Your task to perform on an android device: Look up the best rated headphones on Aliexpress Image 0: 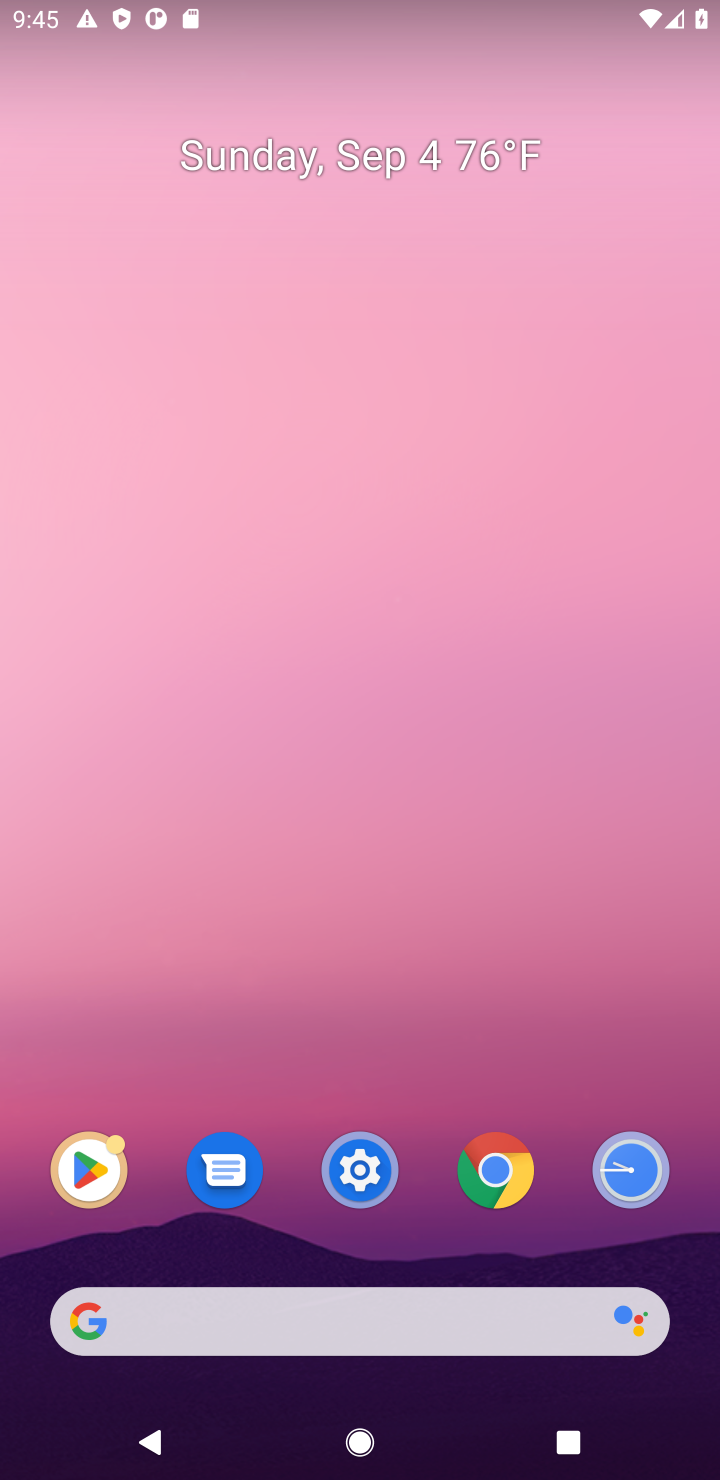
Step 0: click (143, 1331)
Your task to perform on an android device: Look up the best rated headphones on Aliexpress Image 1: 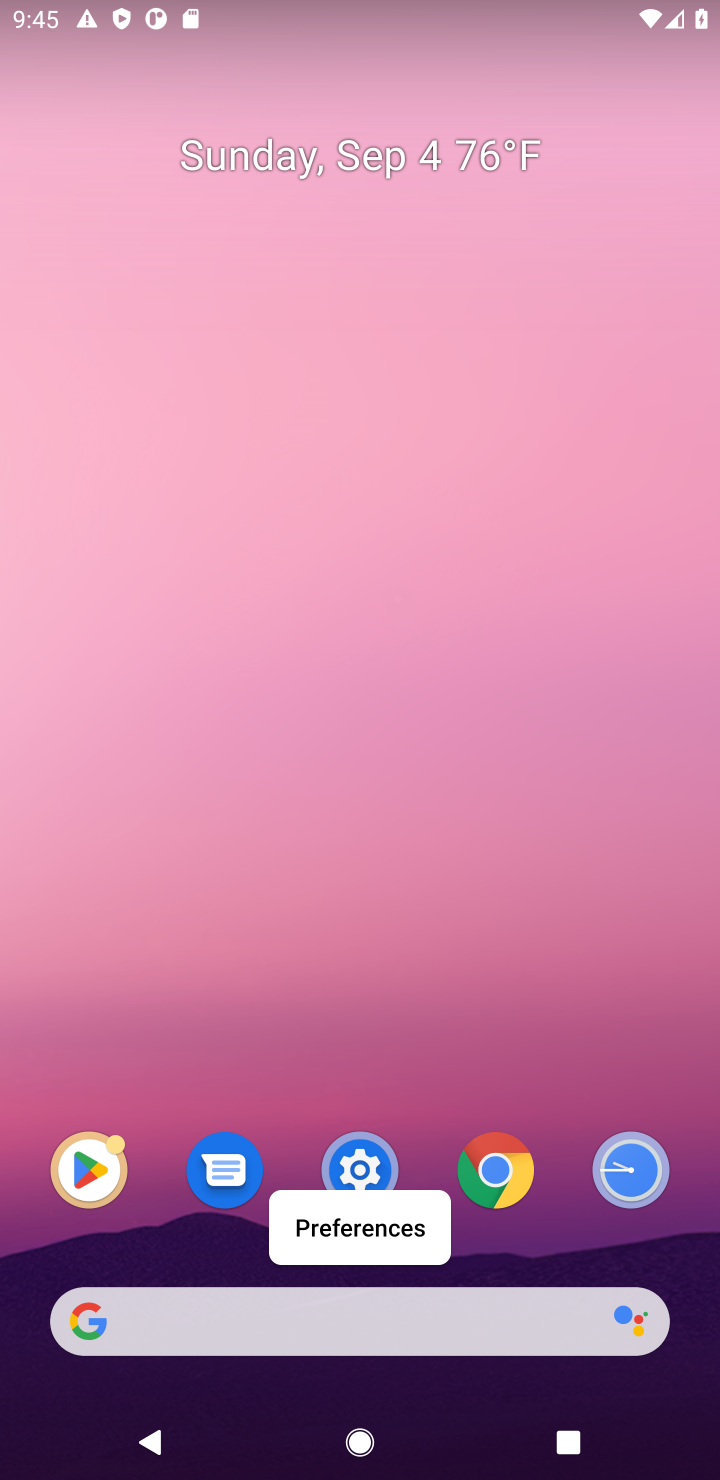
Step 1: click (215, 1318)
Your task to perform on an android device: Look up the best rated headphones on Aliexpress Image 2: 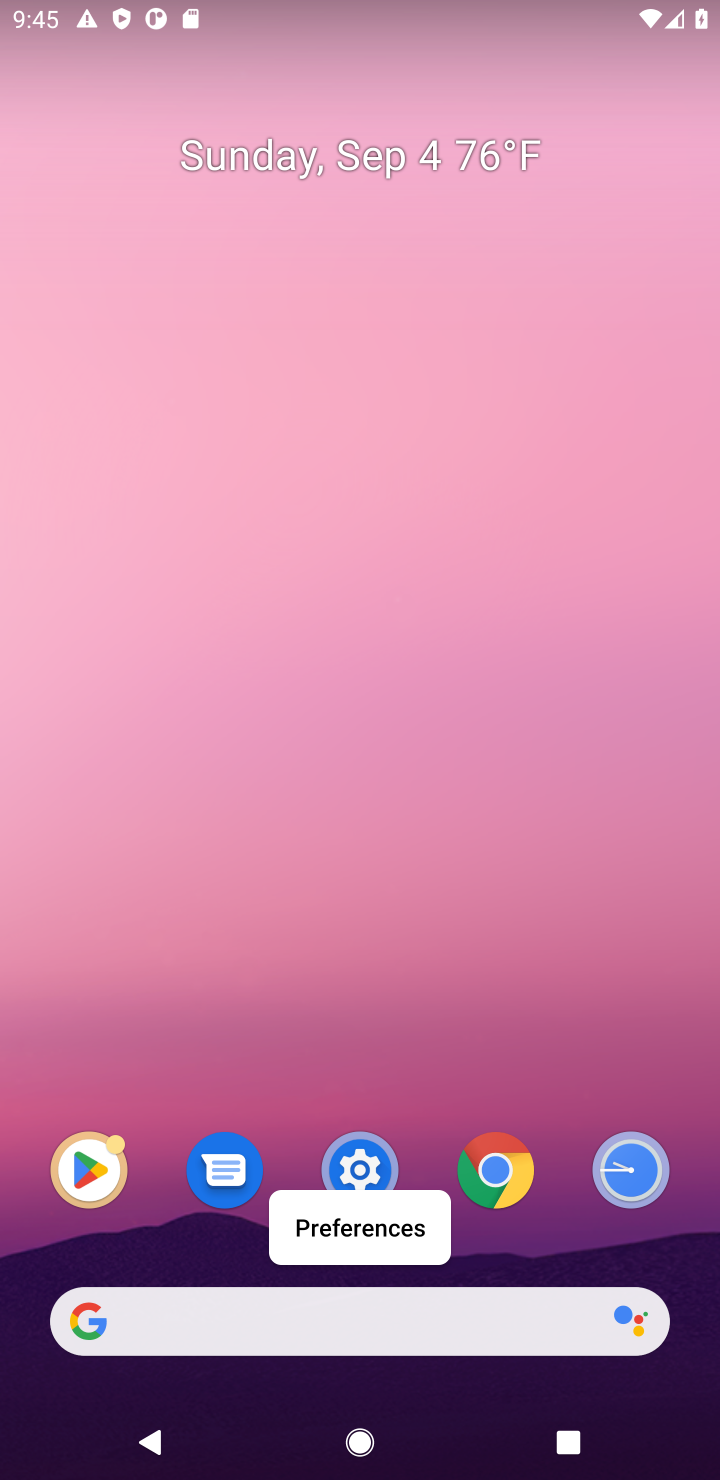
Step 2: click (215, 1317)
Your task to perform on an android device: Look up the best rated headphones on Aliexpress Image 3: 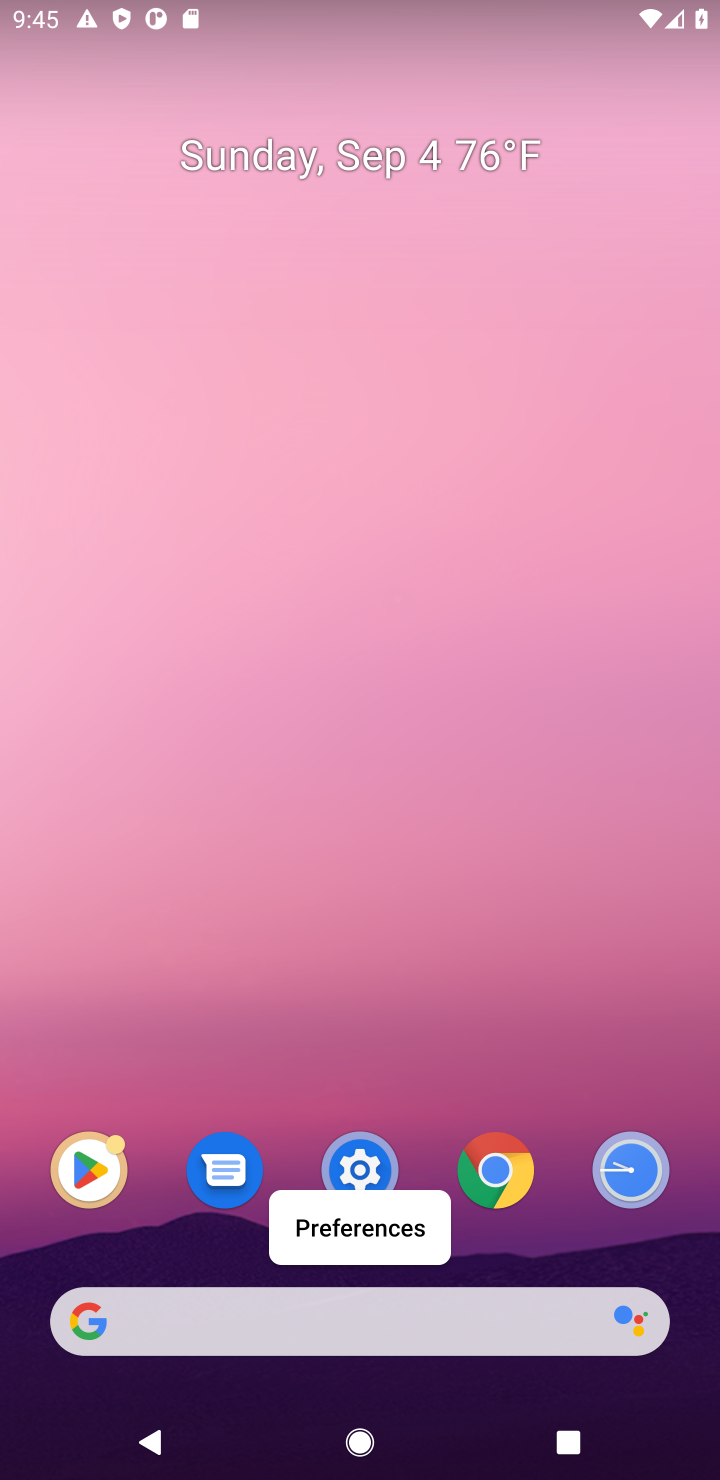
Step 3: click (250, 1318)
Your task to perform on an android device: Look up the best rated headphones on Aliexpress Image 4: 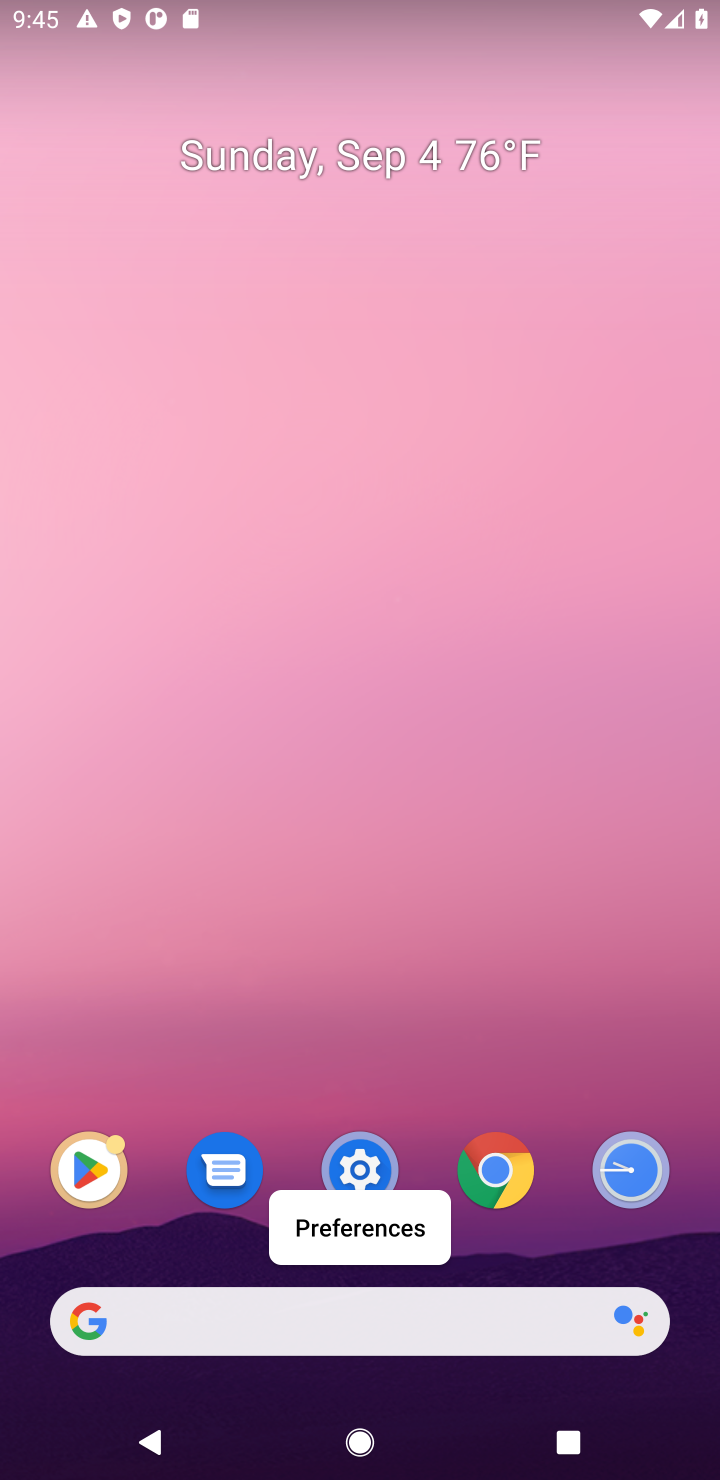
Step 4: click (395, 1324)
Your task to perform on an android device: Look up the best rated headphones on Aliexpress Image 5: 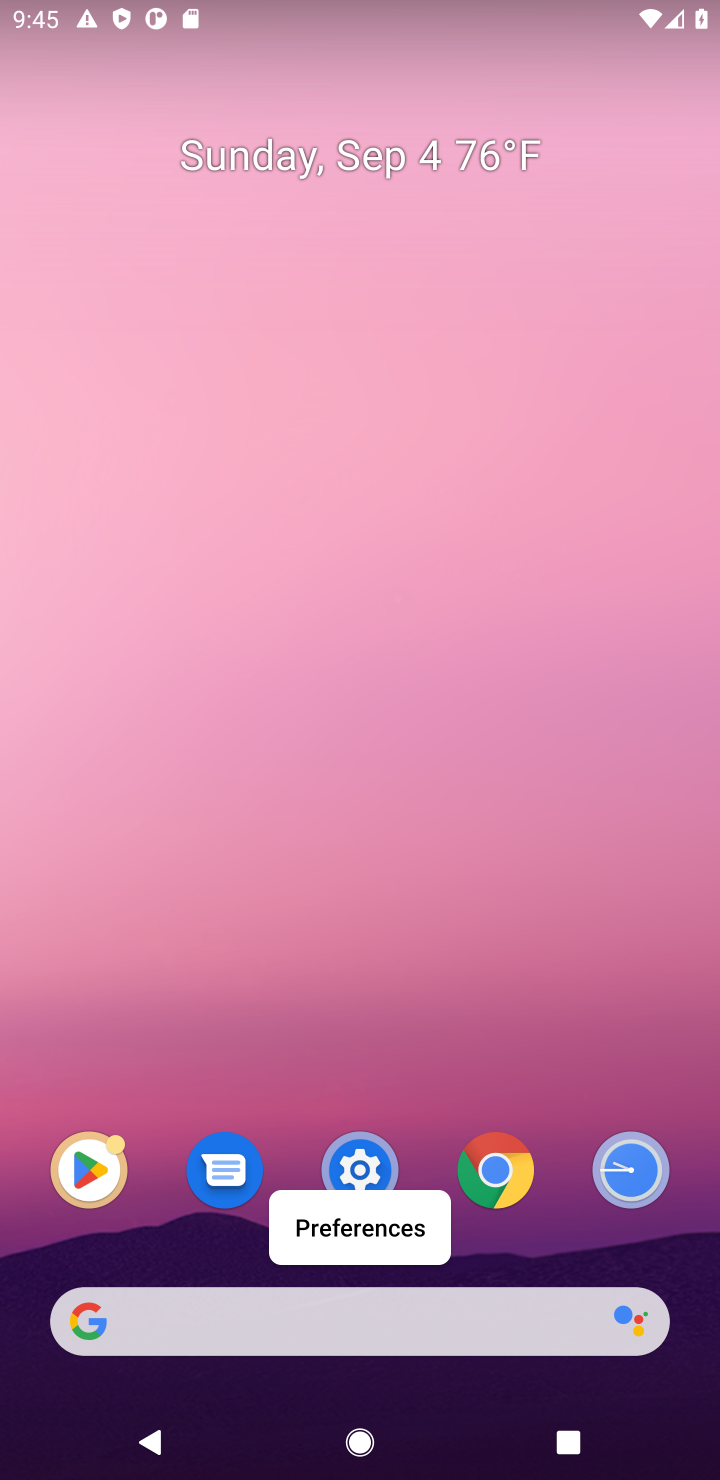
Step 5: click (381, 1312)
Your task to perform on an android device: Look up the best rated headphones on Aliexpress Image 6: 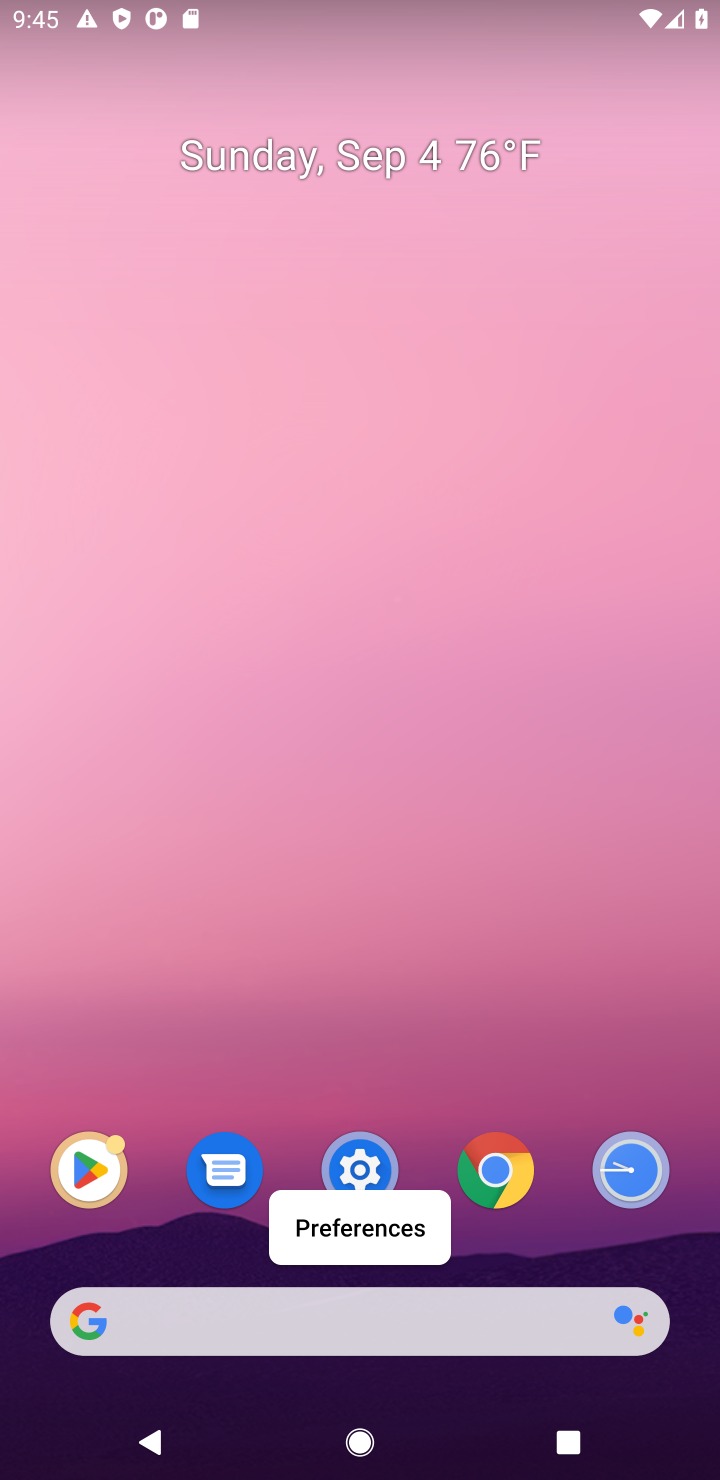
Step 6: click (340, 1354)
Your task to perform on an android device: Look up the best rated headphones on Aliexpress Image 7: 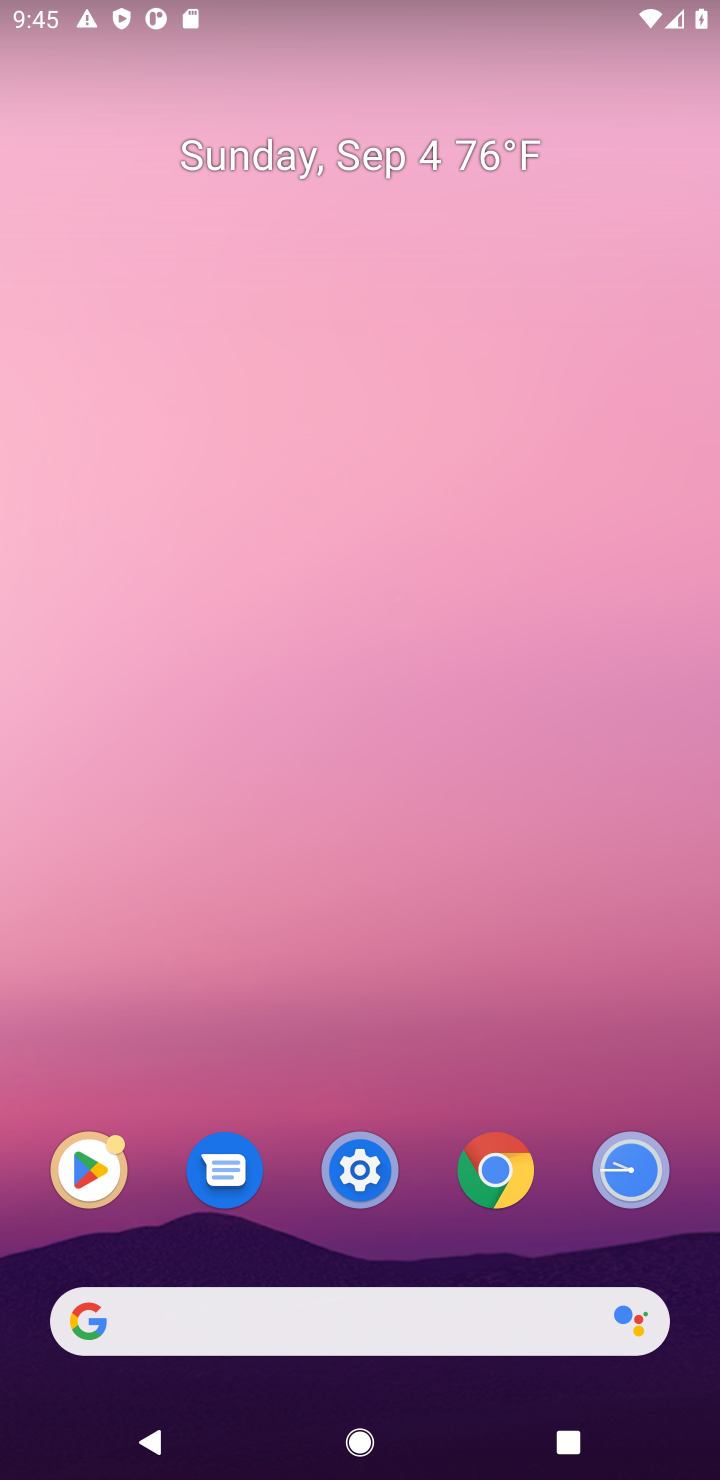
Step 7: click (334, 1313)
Your task to perform on an android device: Look up the best rated headphones on Aliexpress Image 8: 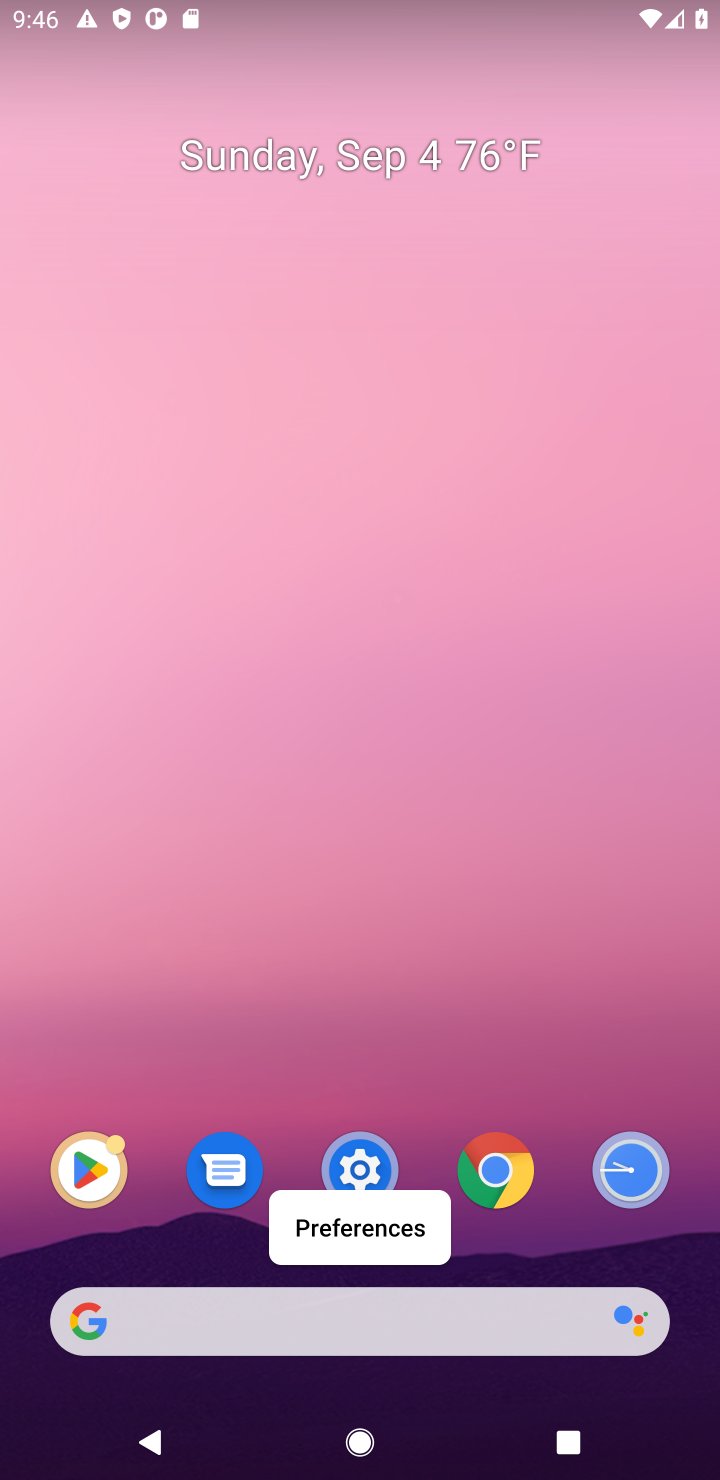
Step 8: click (334, 1312)
Your task to perform on an android device: Look up the best rated headphones on Aliexpress Image 9: 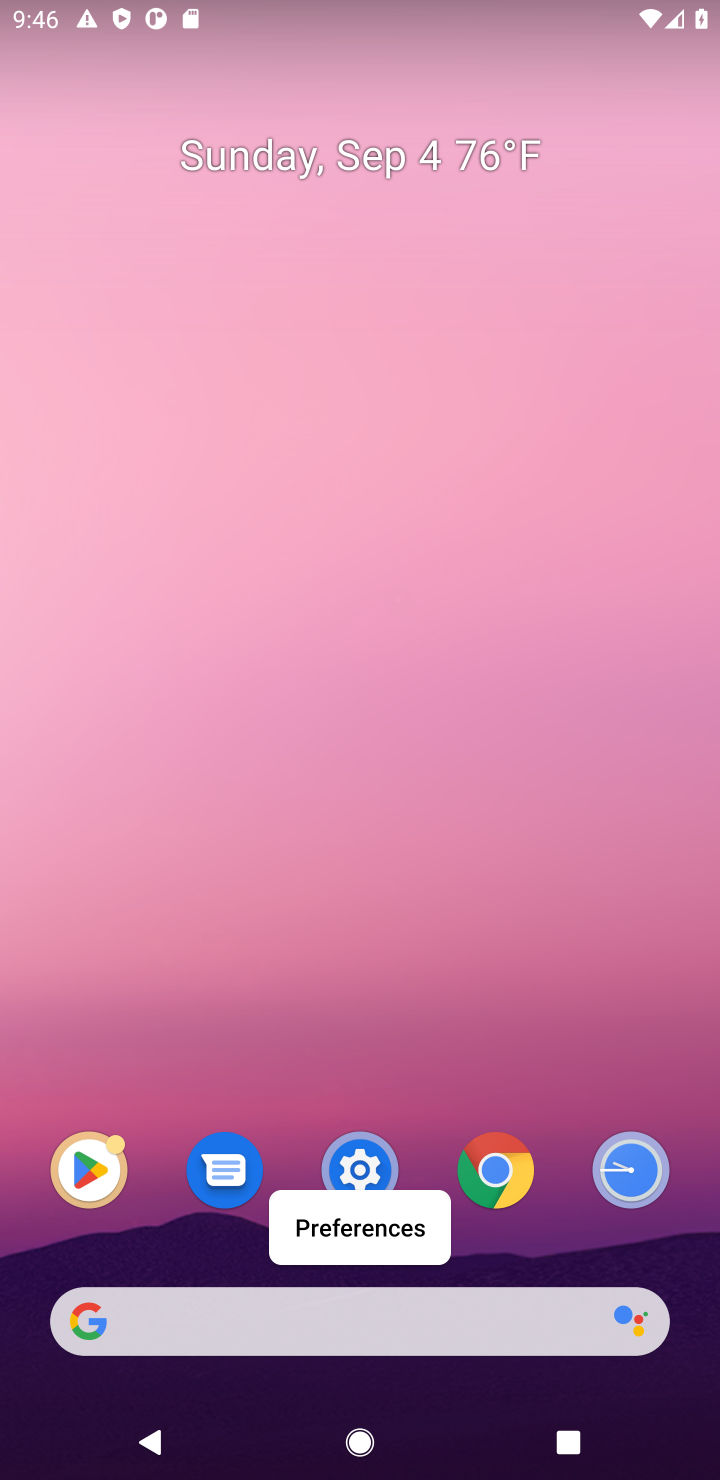
Step 9: click (327, 1320)
Your task to perform on an android device: Look up the best rated headphones on Aliexpress Image 10: 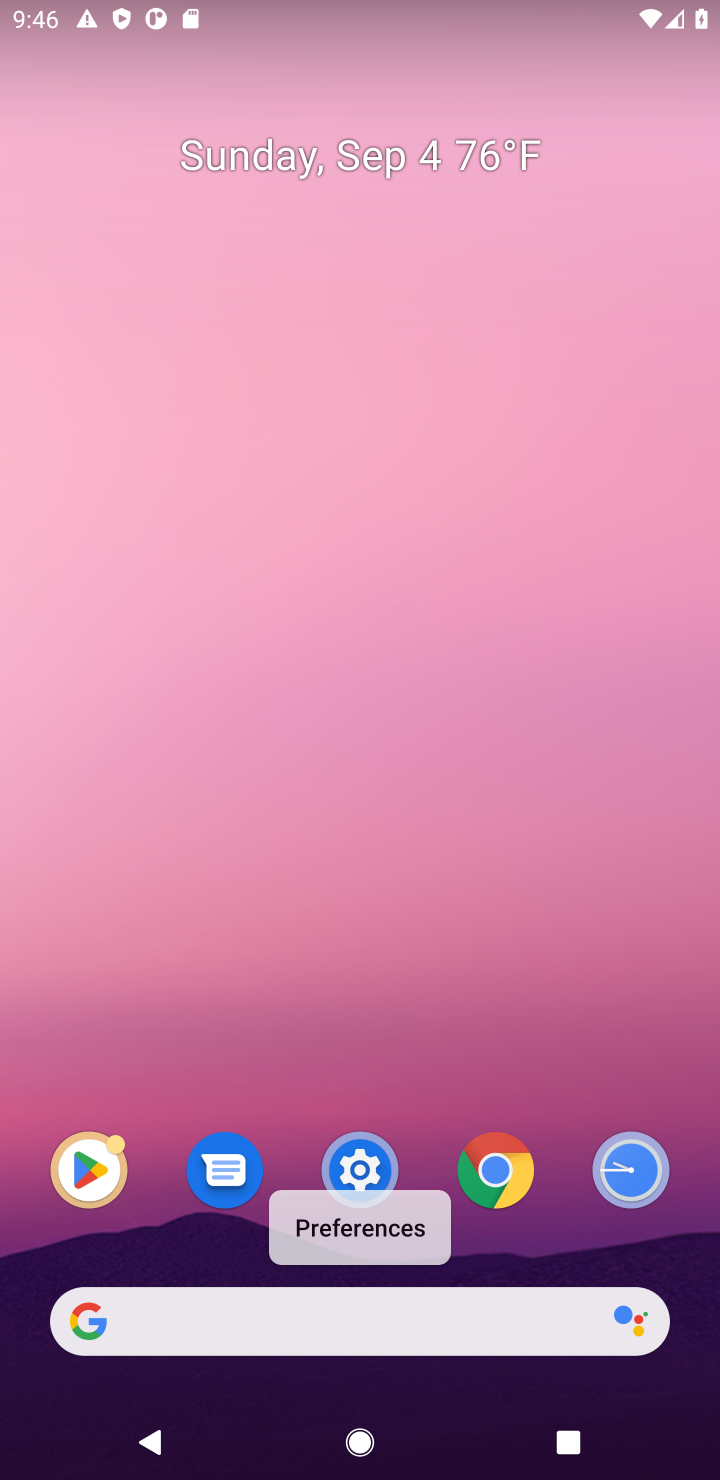
Step 10: click (327, 1319)
Your task to perform on an android device: Look up the best rated headphones on Aliexpress Image 11: 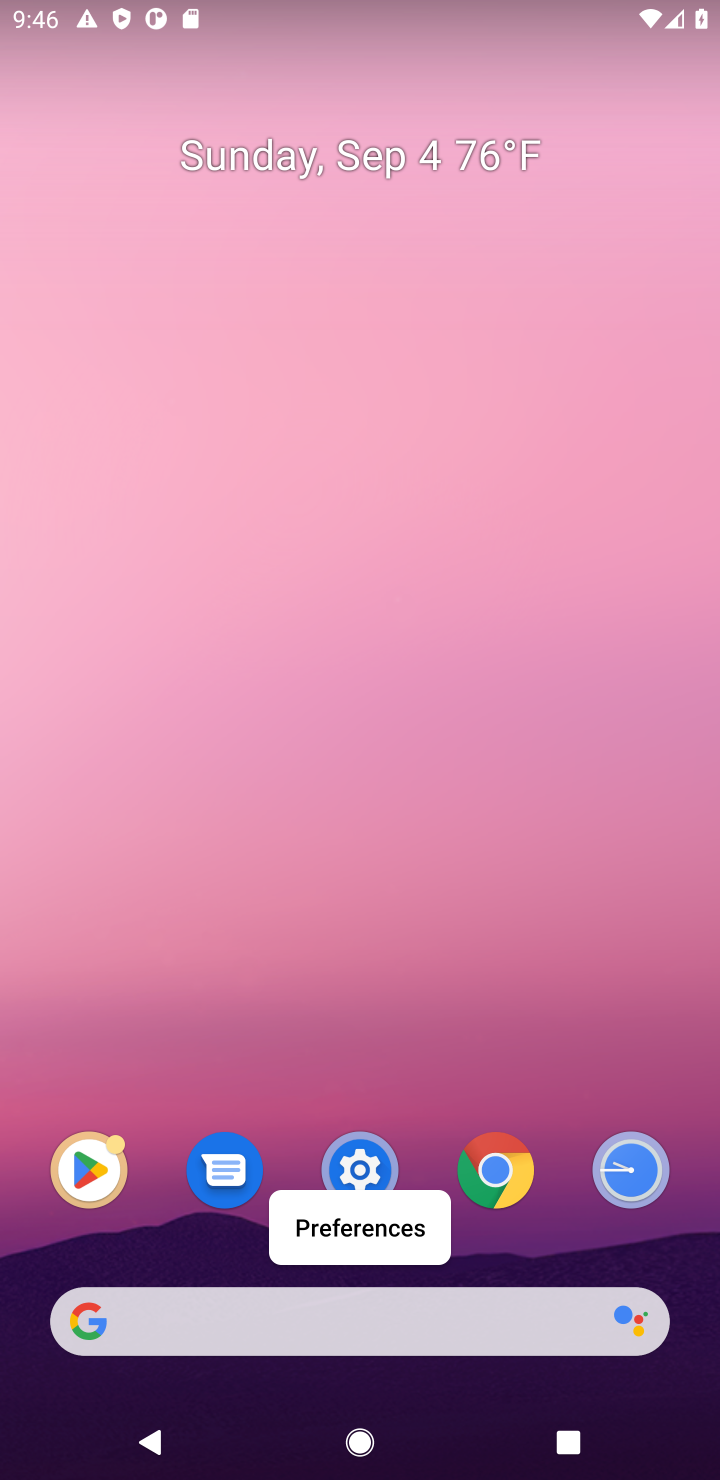
Step 11: click (327, 1320)
Your task to perform on an android device: Look up the best rated headphones on Aliexpress Image 12: 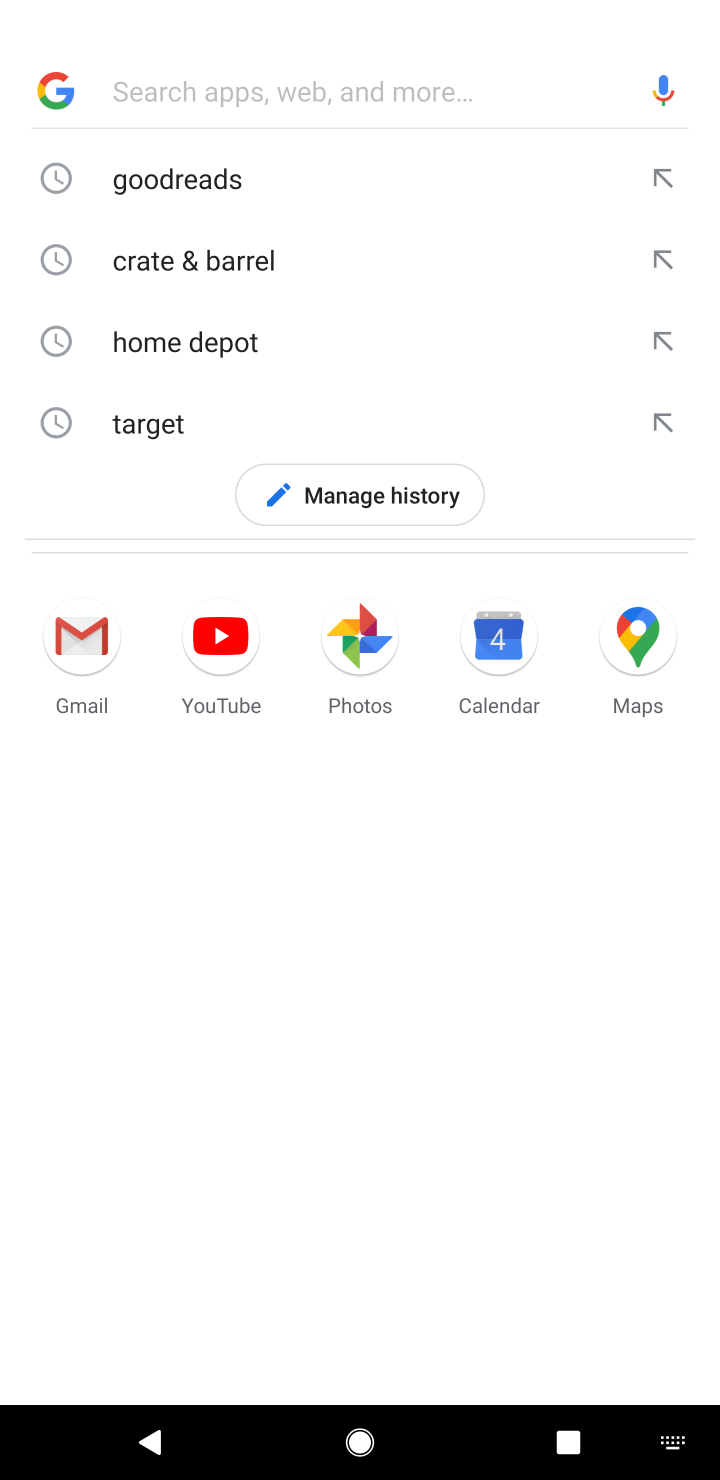
Step 12: type "Aliexpress"
Your task to perform on an android device: Look up the best rated headphones on Aliexpress Image 13: 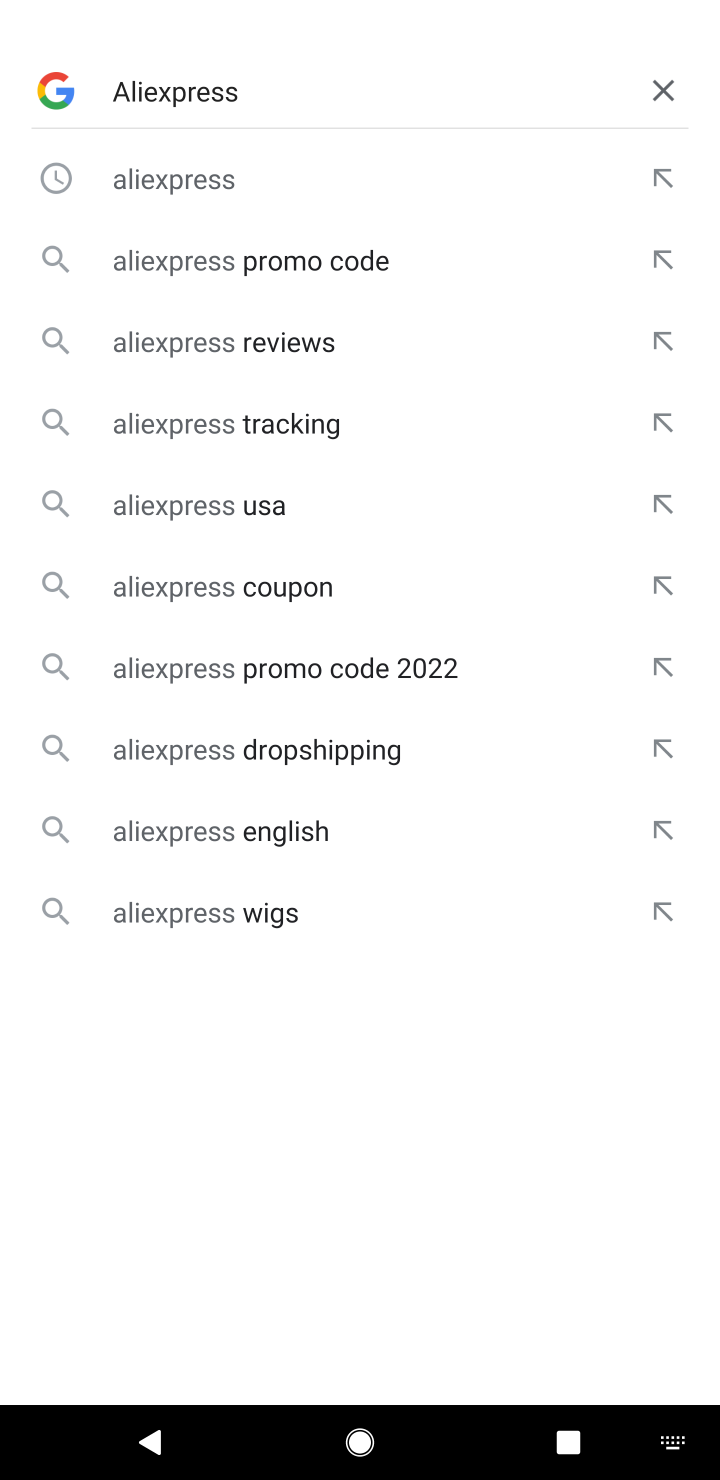
Step 13: click (294, 190)
Your task to perform on an android device: Look up the best rated headphones on Aliexpress Image 14: 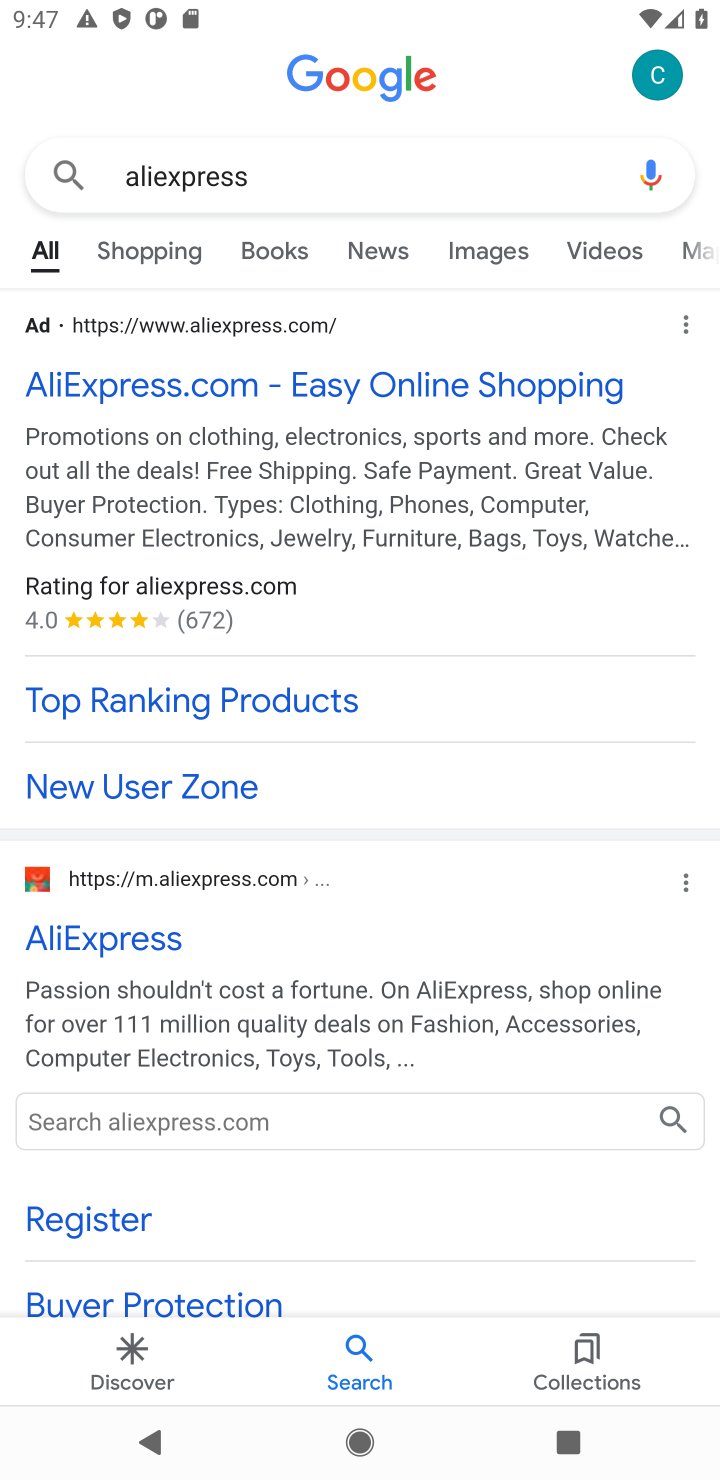
Step 14: click (55, 933)
Your task to perform on an android device: Look up the best rated headphones on Aliexpress Image 15: 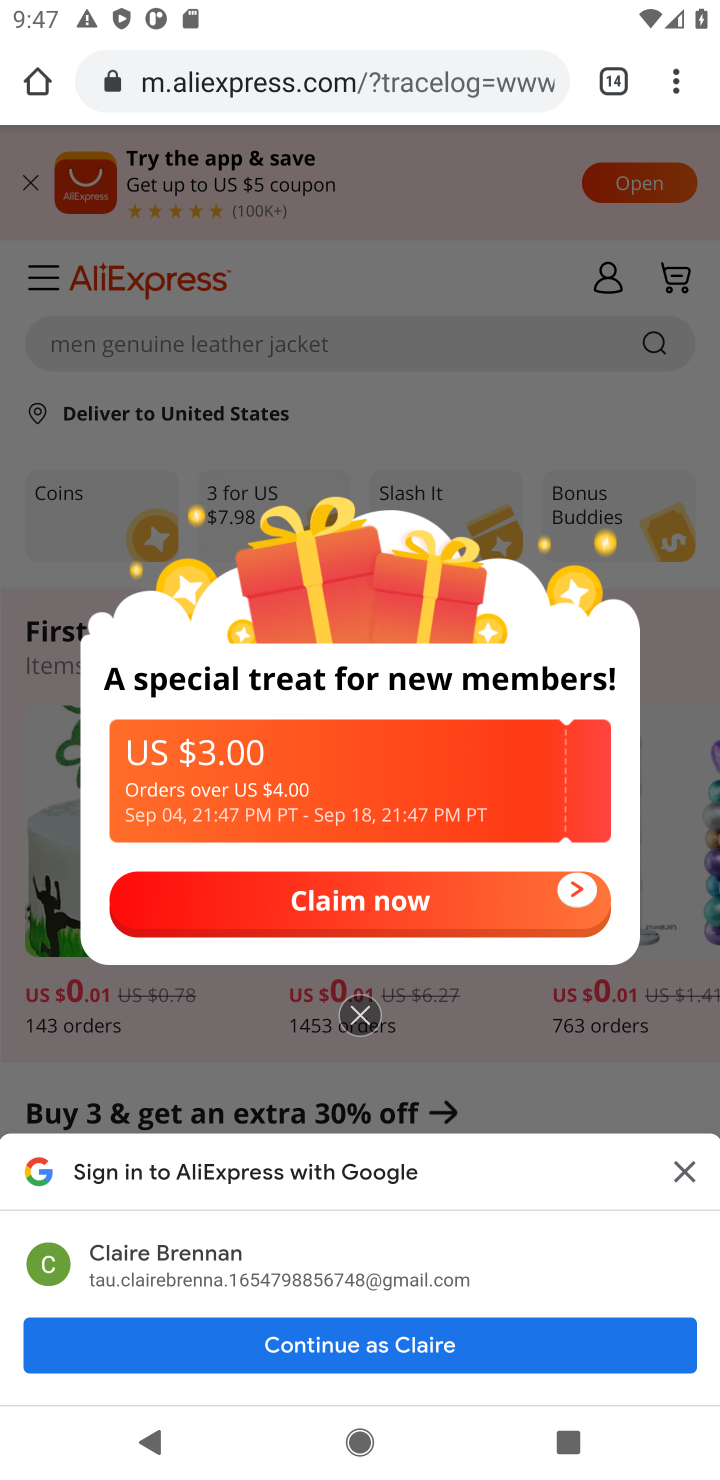
Step 15: click (340, 1012)
Your task to perform on an android device: Look up the best rated headphones on Aliexpress Image 16: 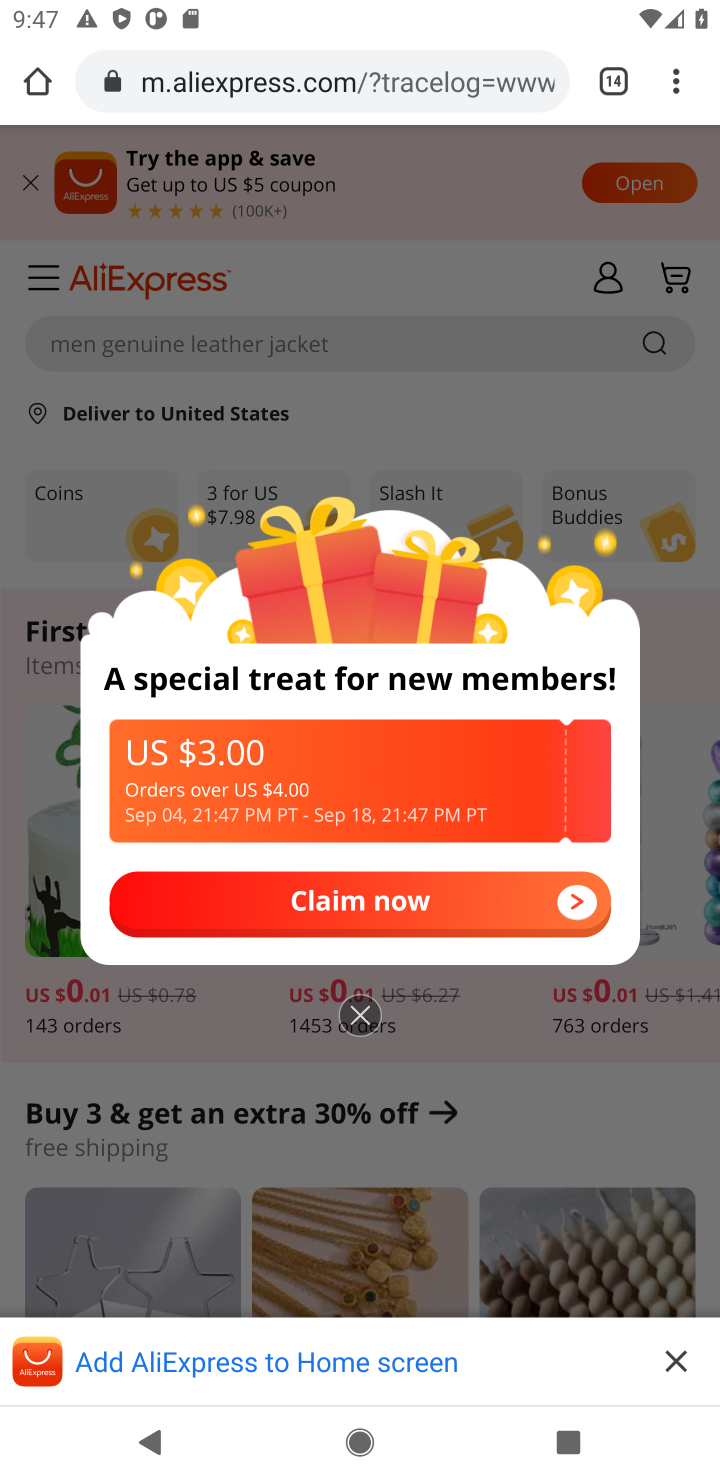
Step 16: click (362, 1022)
Your task to perform on an android device: Look up the best rated headphones on Aliexpress Image 17: 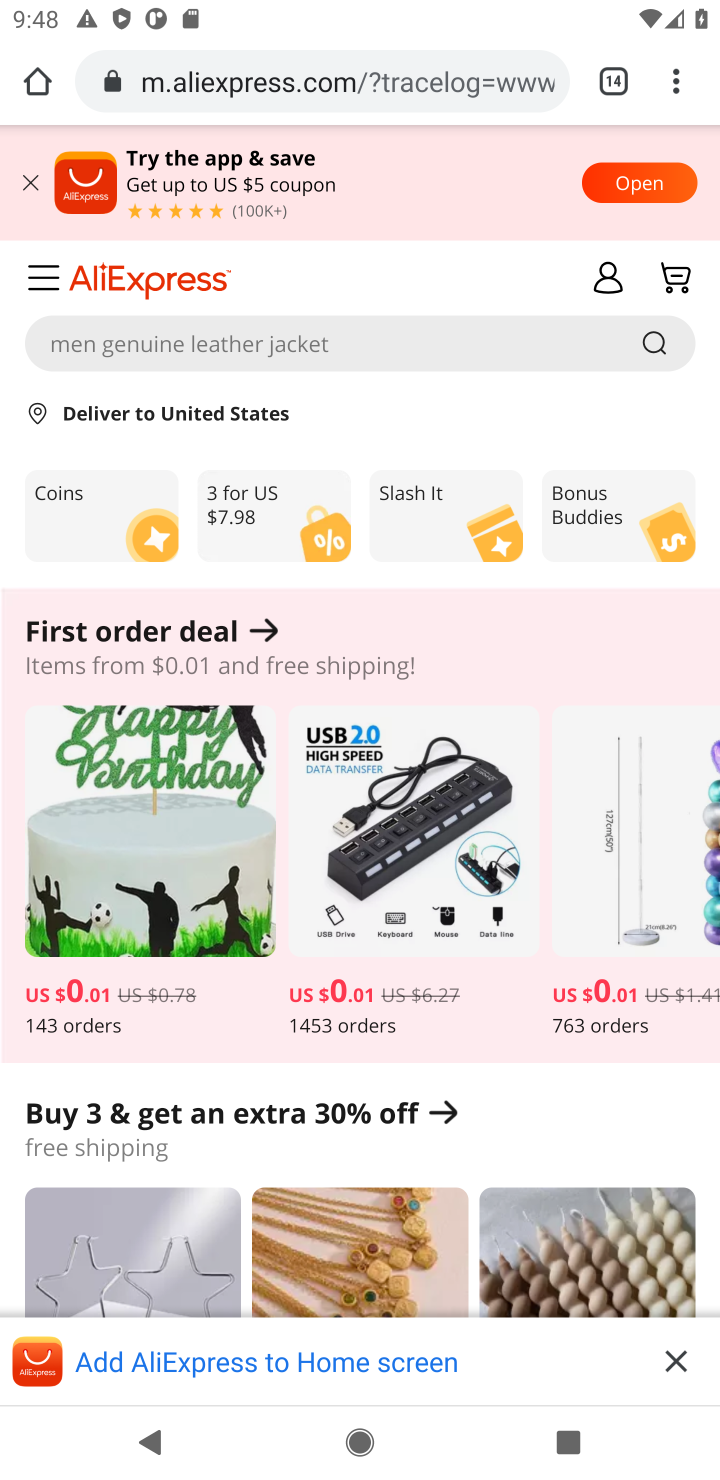
Step 17: click (203, 356)
Your task to perform on an android device: Look up the best rated headphones on Aliexpress Image 18: 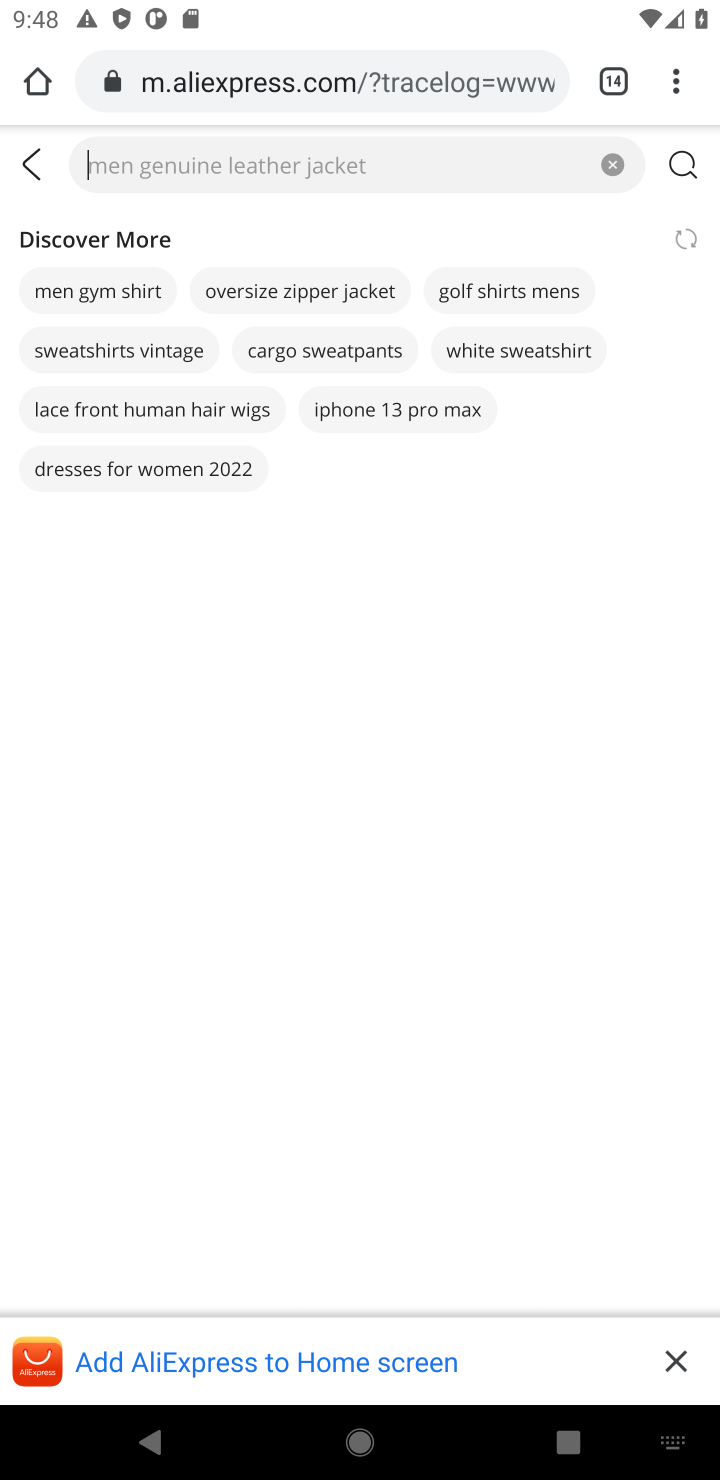
Step 18: type "headphones"
Your task to perform on an android device: Look up the best rated headphones on Aliexpress Image 19: 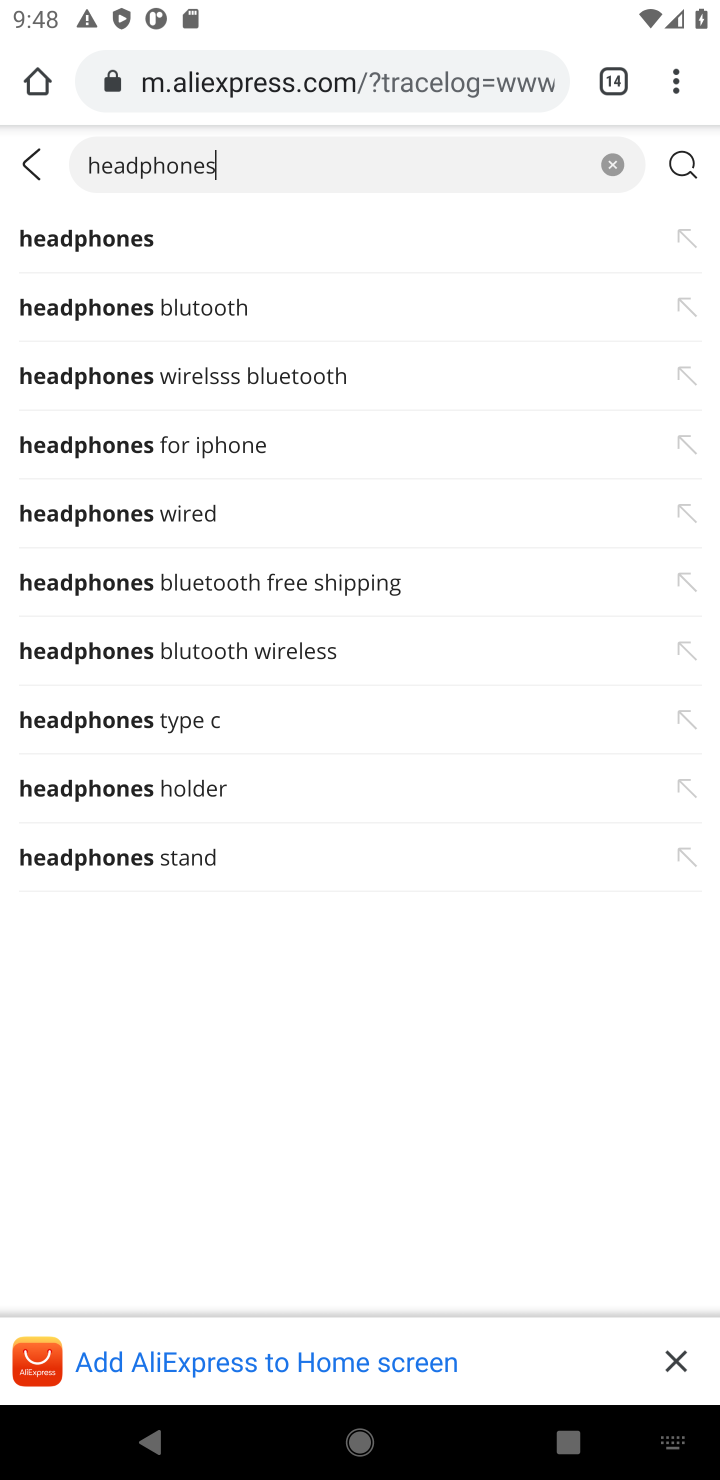
Step 19: click (134, 252)
Your task to perform on an android device: Look up the best rated headphones on Aliexpress Image 20: 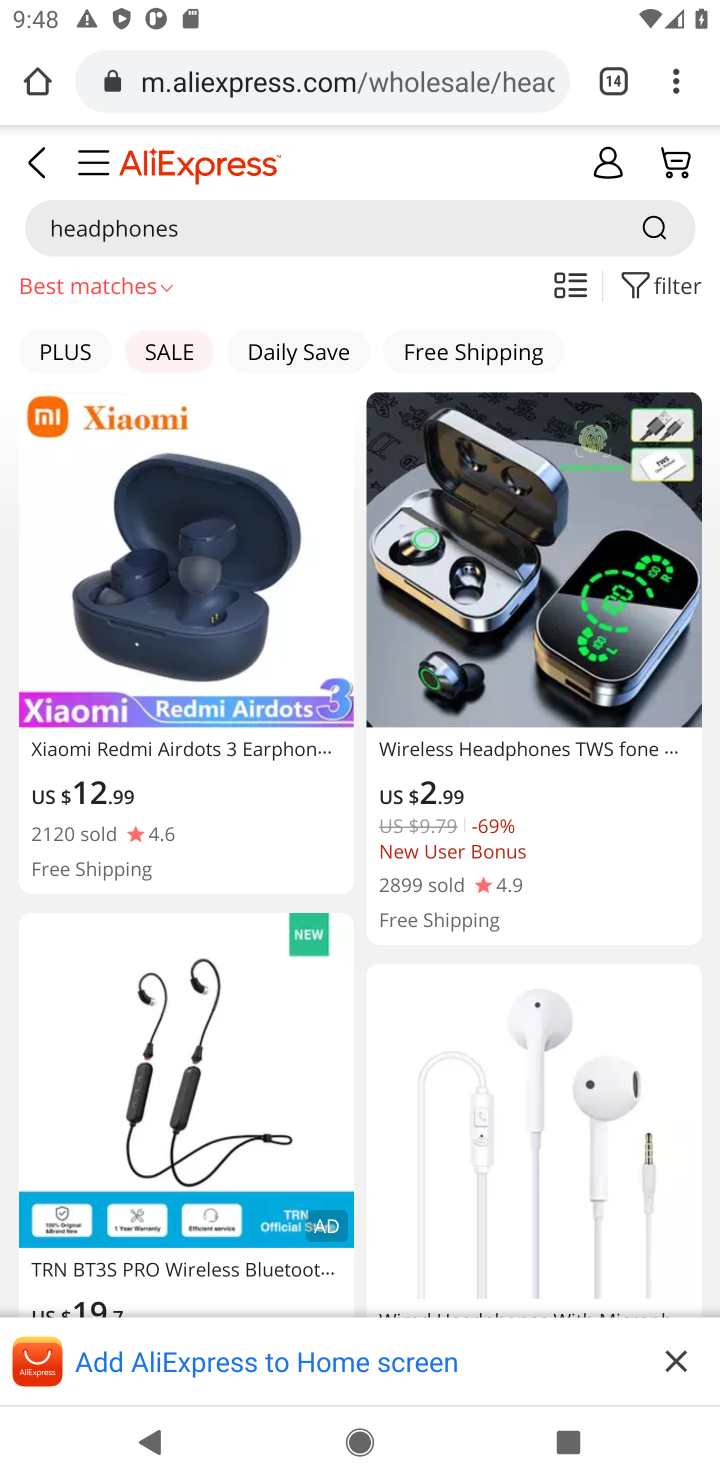
Step 20: task complete